Your task to perform on an android device: install app "Google Home" Image 0: 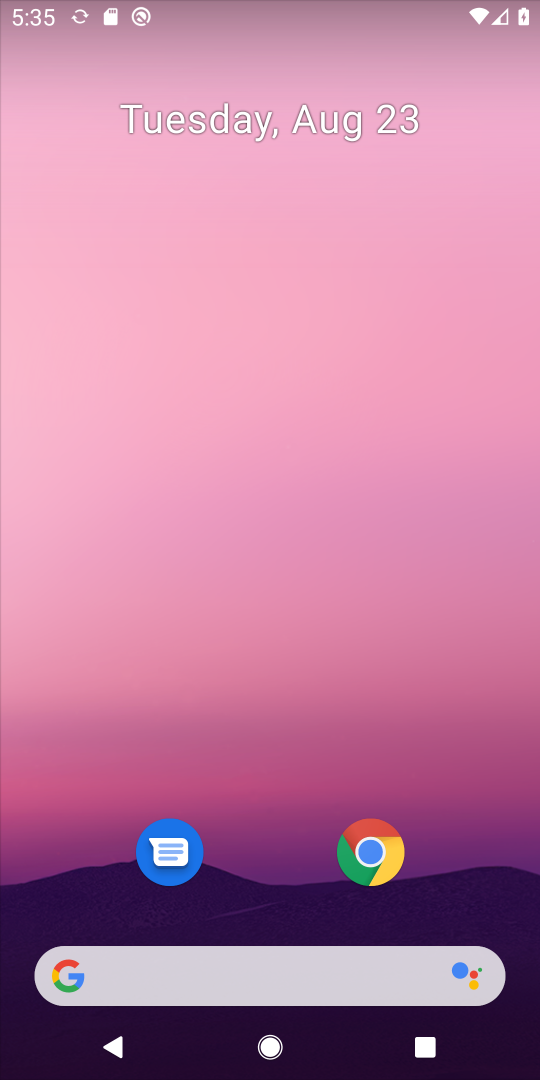
Step 0: press home button
Your task to perform on an android device: install app "Google Home" Image 1: 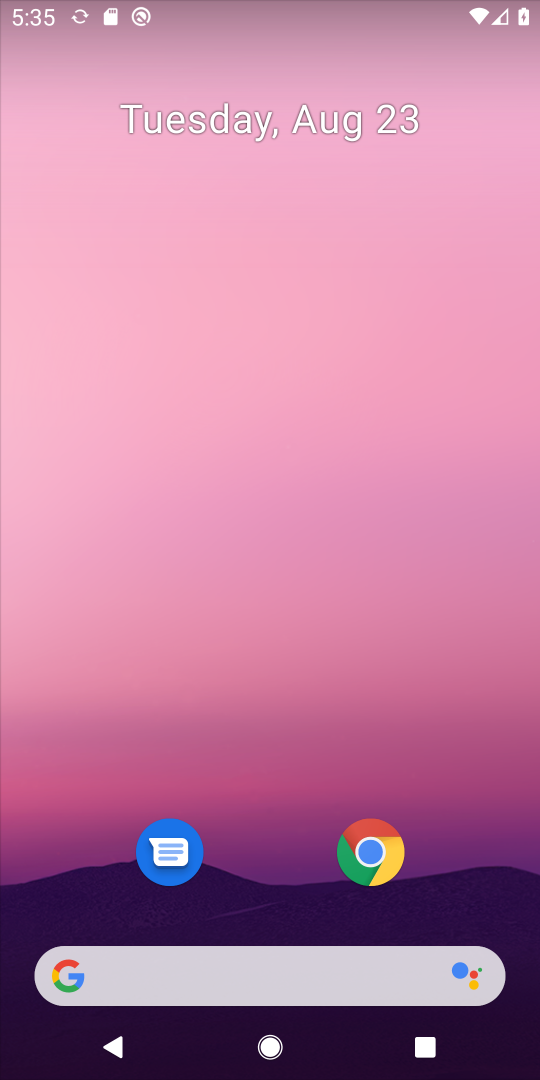
Step 1: drag from (259, 970) to (314, 167)
Your task to perform on an android device: install app "Google Home" Image 2: 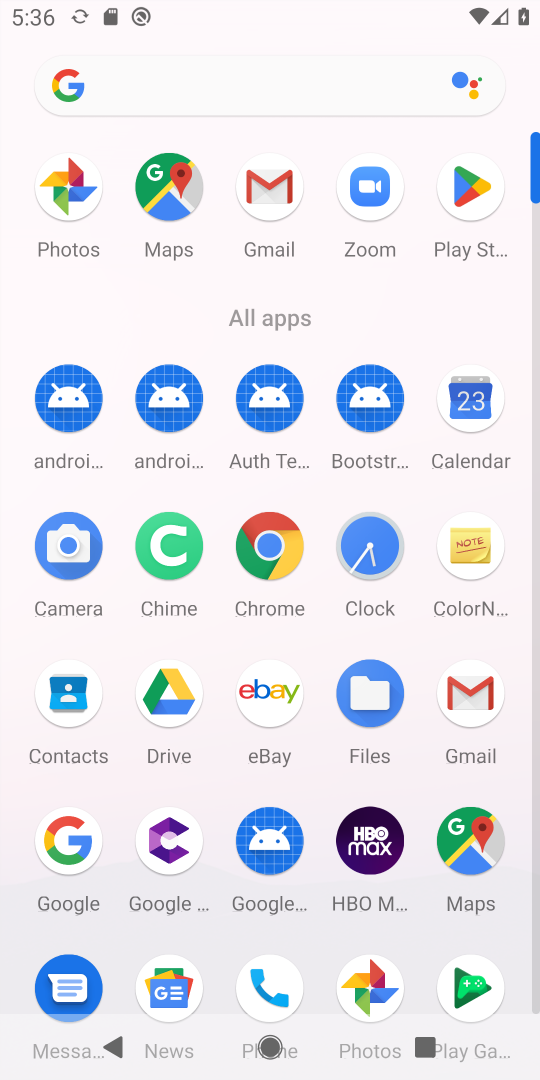
Step 2: click (471, 188)
Your task to perform on an android device: install app "Google Home" Image 3: 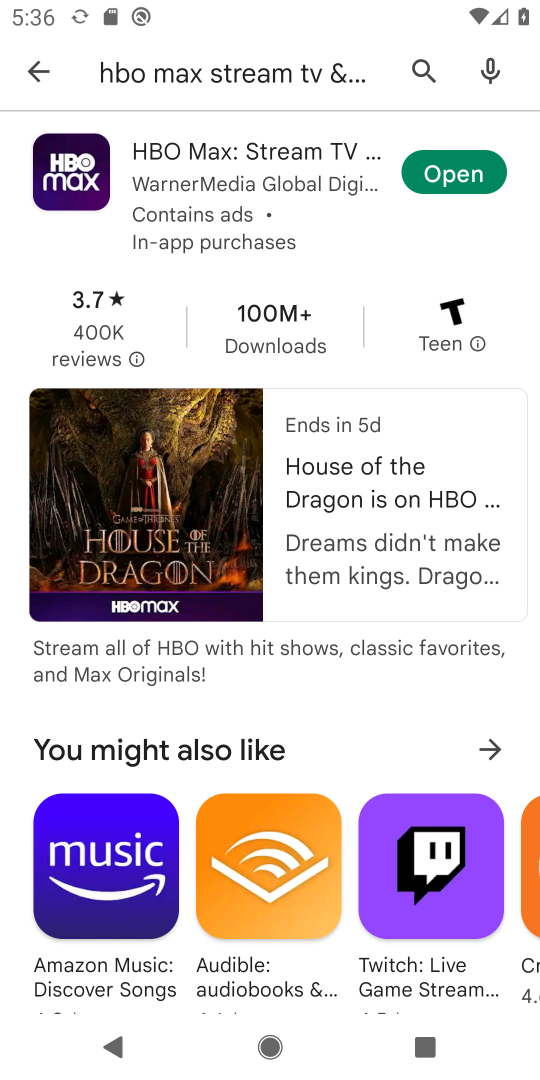
Step 3: press back button
Your task to perform on an android device: install app "Google Home" Image 4: 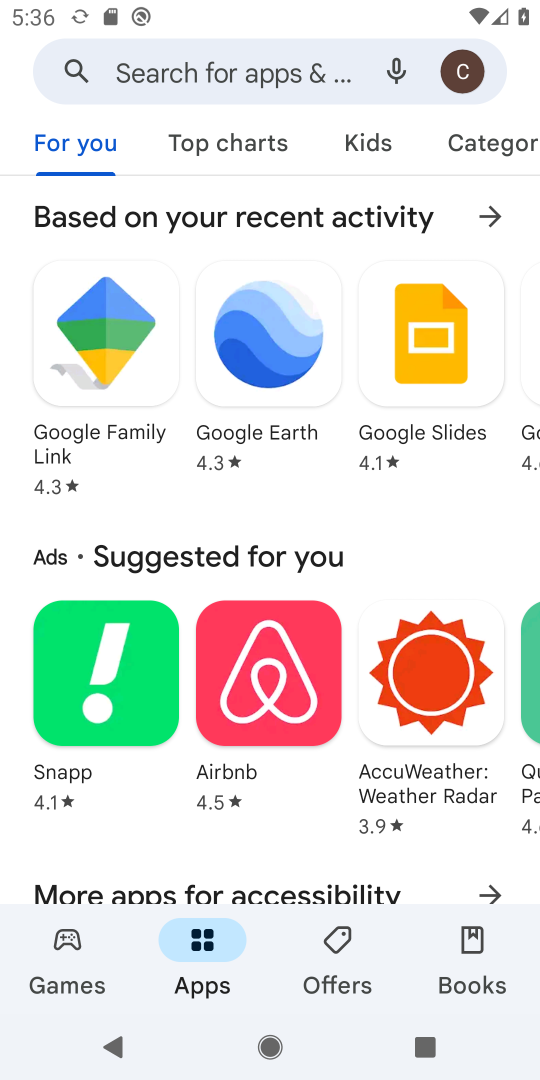
Step 4: click (287, 69)
Your task to perform on an android device: install app "Google Home" Image 5: 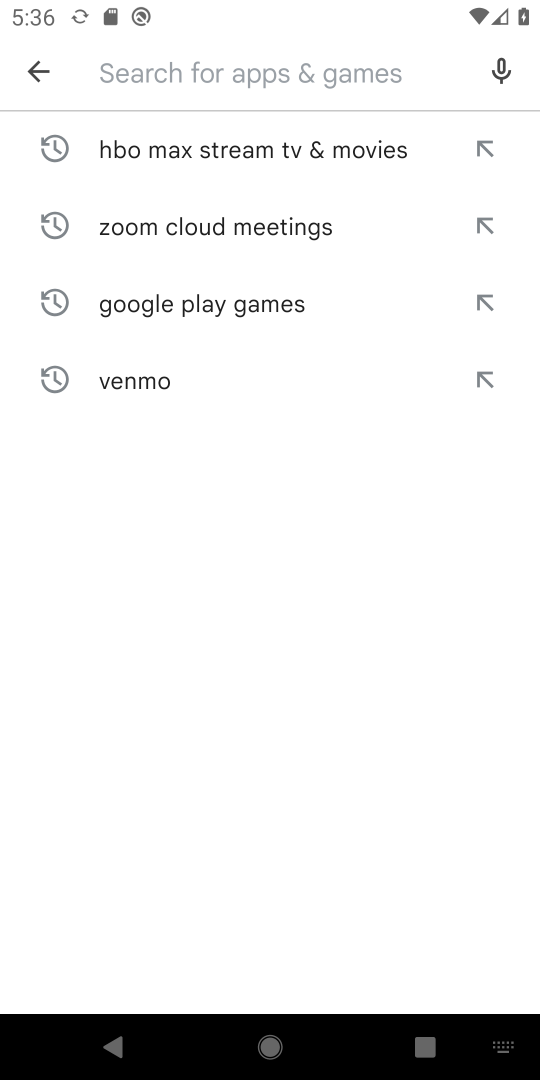
Step 5: type "Google Home"
Your task to perform on an android device: install app "Google Home" Image 6: 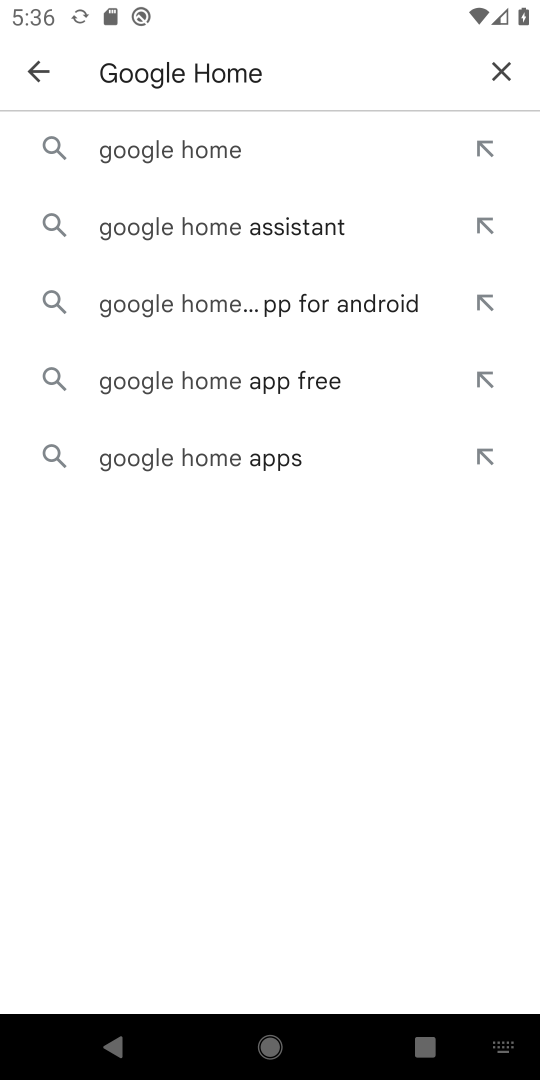
Step 6: click (186, 144)
Your task to perform on an android device: install app "Google Home" Image 7: 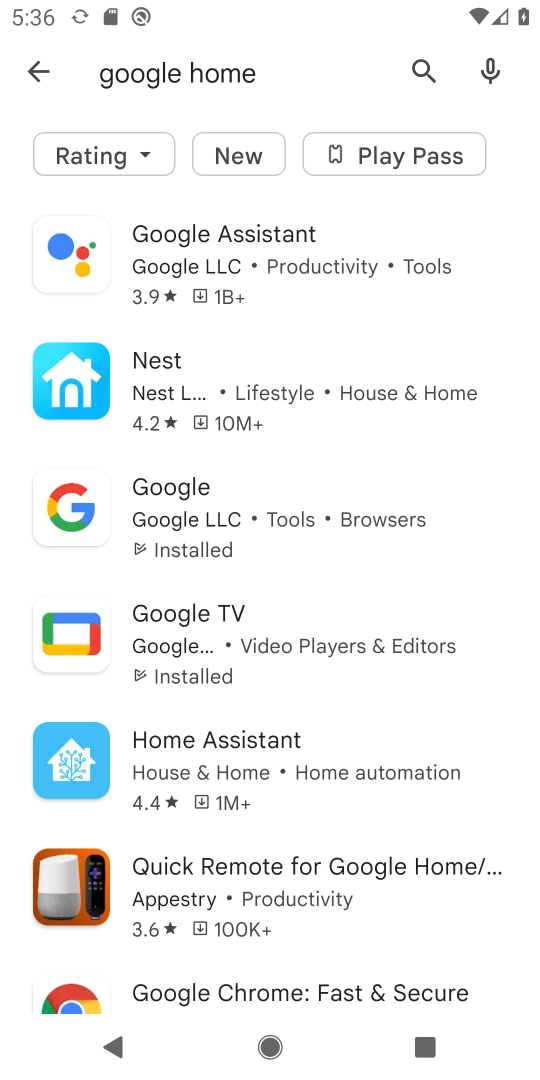
Step 7: click (226, 363)
Your task to perform on an android device: install app "Google Home" Image 8: 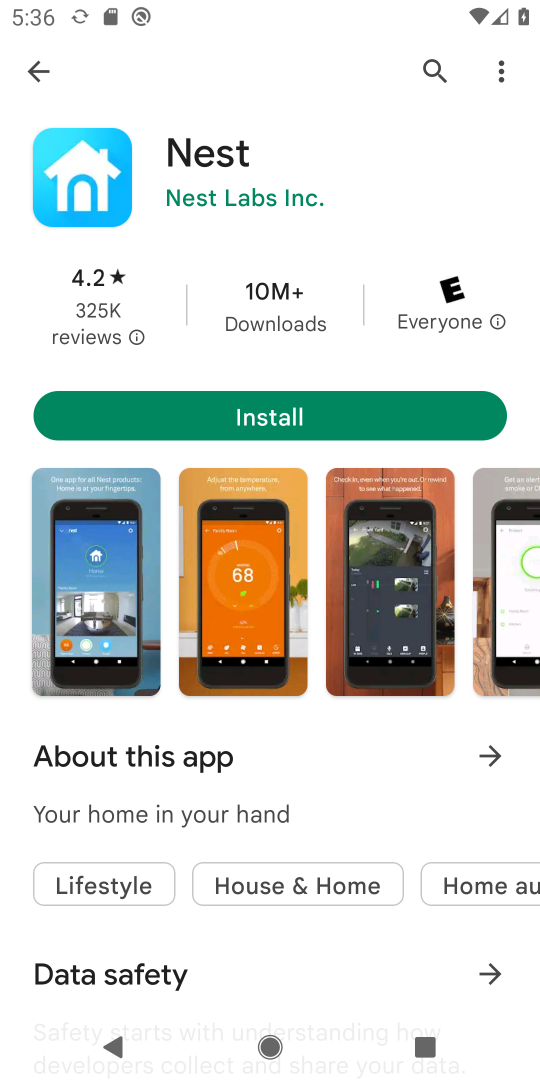
Step 8: press back button
Your task to perform on an android device: install app "Google Home" Image 9: 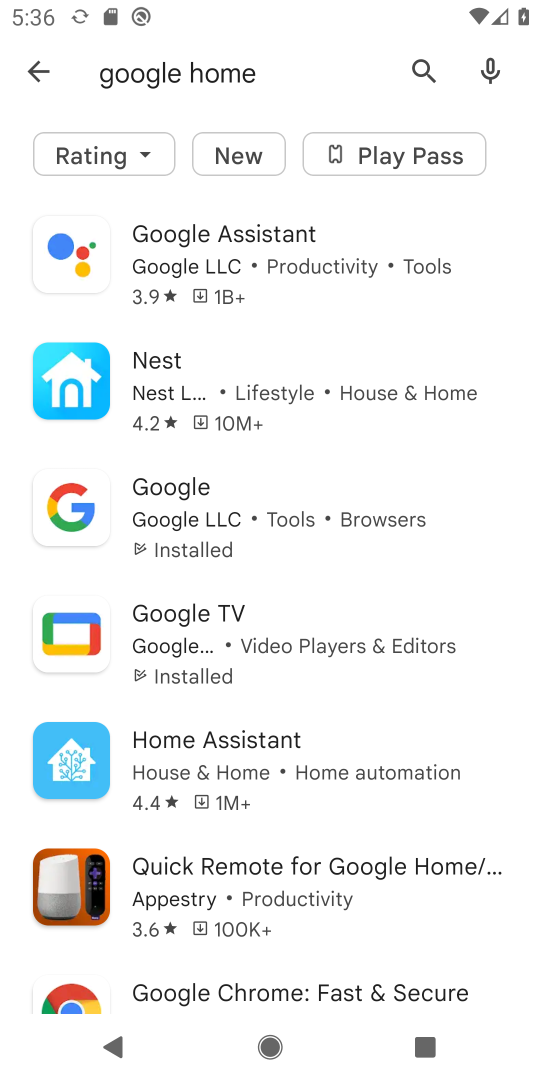
Step 9: drag from (333, 387) to (353, 239)
Your task to perform on an android device: install app "Google Home" Image 10: 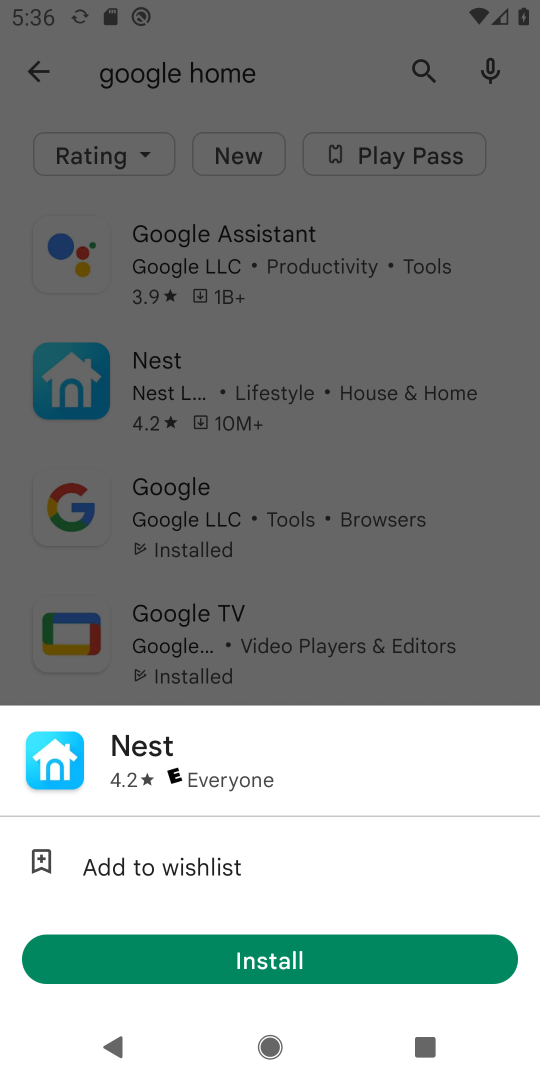
Step 10: click (479, 452)
Your task to perform on an android device: install app "Google Home" Image 11: 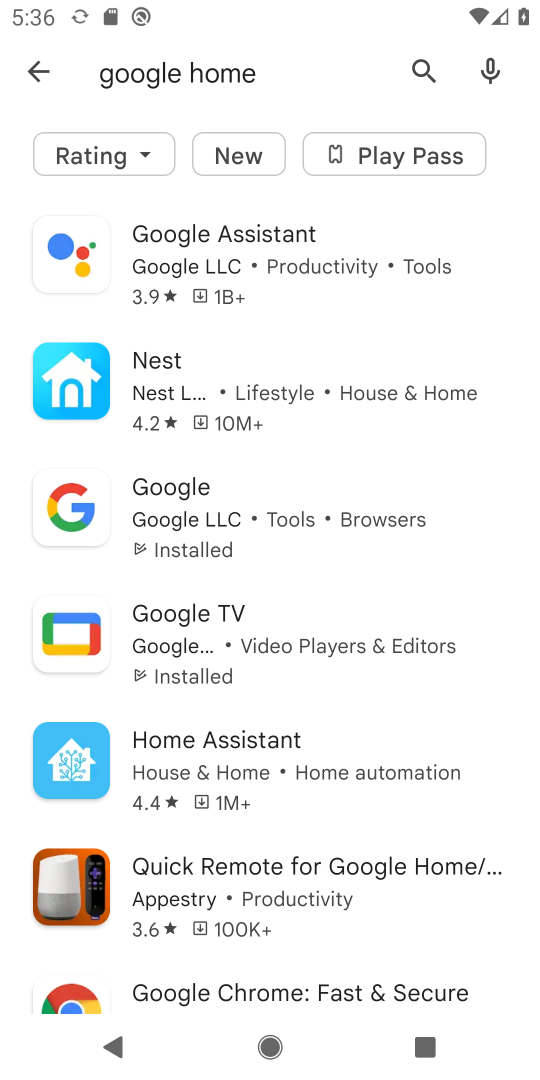
Step 11: drag from (281, 945) to (315, 683)
Your task to perform on an android device: install app "Google Home" Image 12: 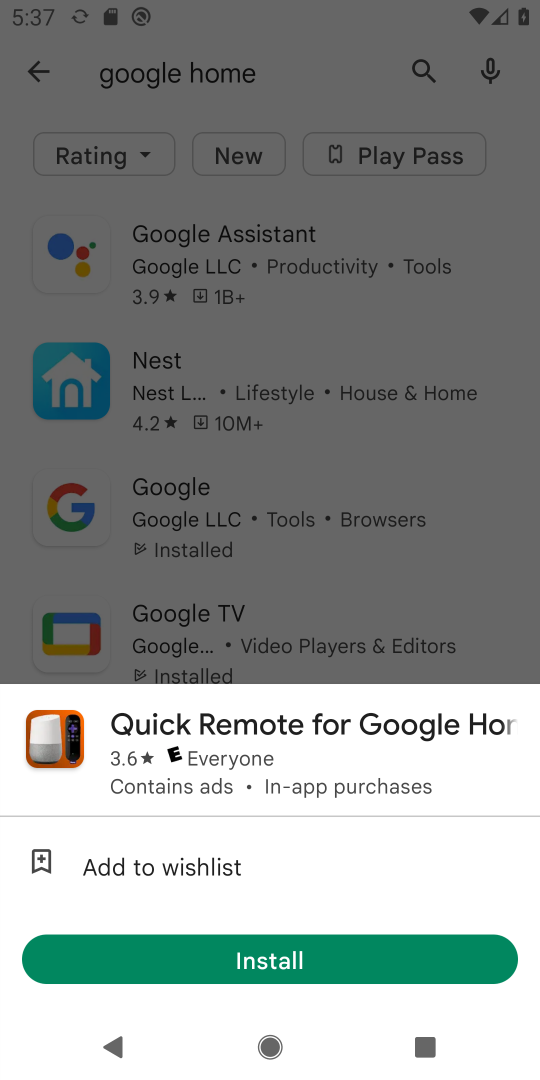
Step 12: click (348, 584)
Your task to perform on an android device: install app "Google Home" Image 13: 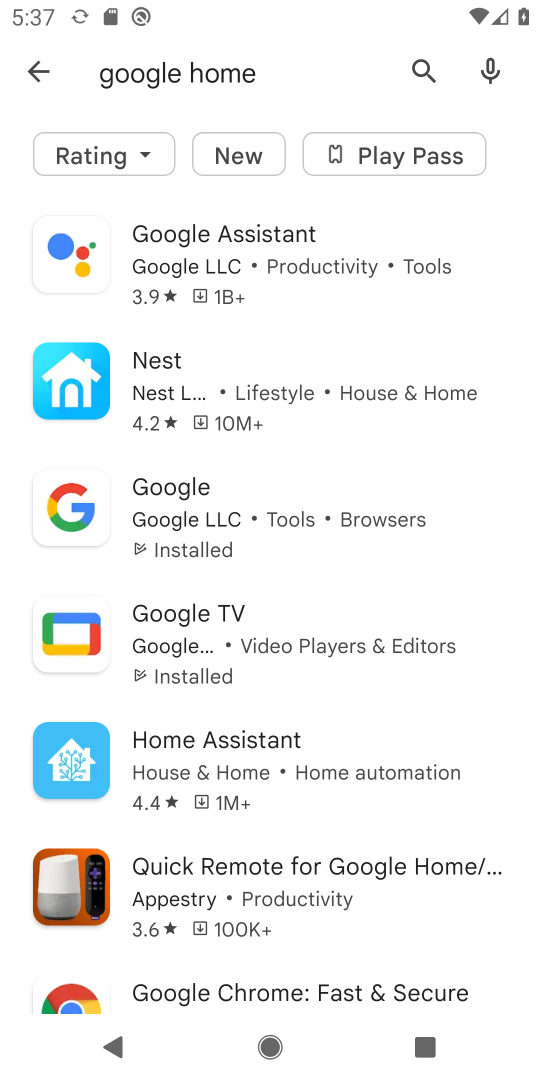
Step 13: drag from (234, 842) to (264, 582)
Your task to perform on an android device: install app "Google Home" Image 14: 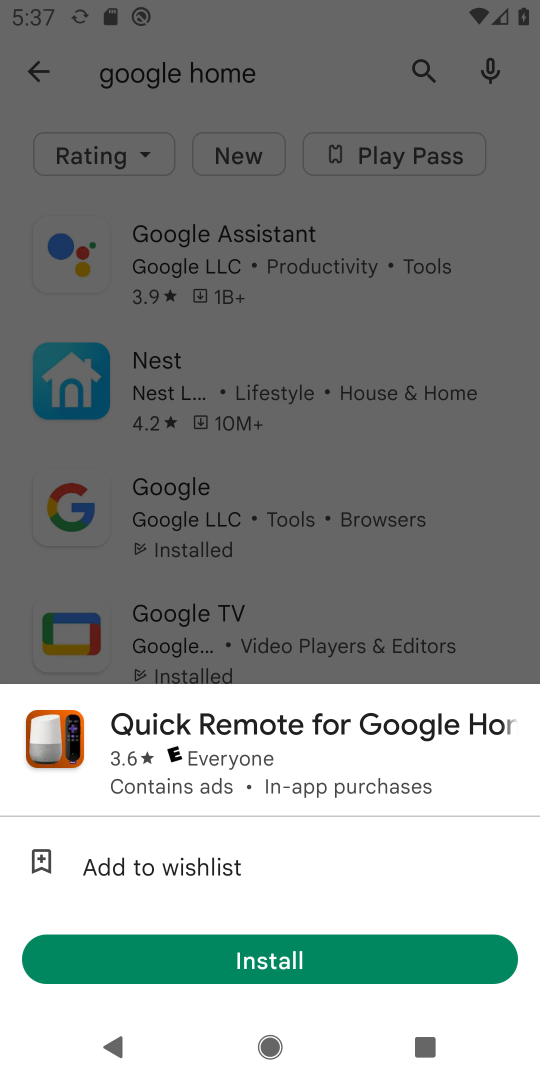
Step 14: click (348, 562)
Your task to perform on an android device: install app "Google Home" Image 15: 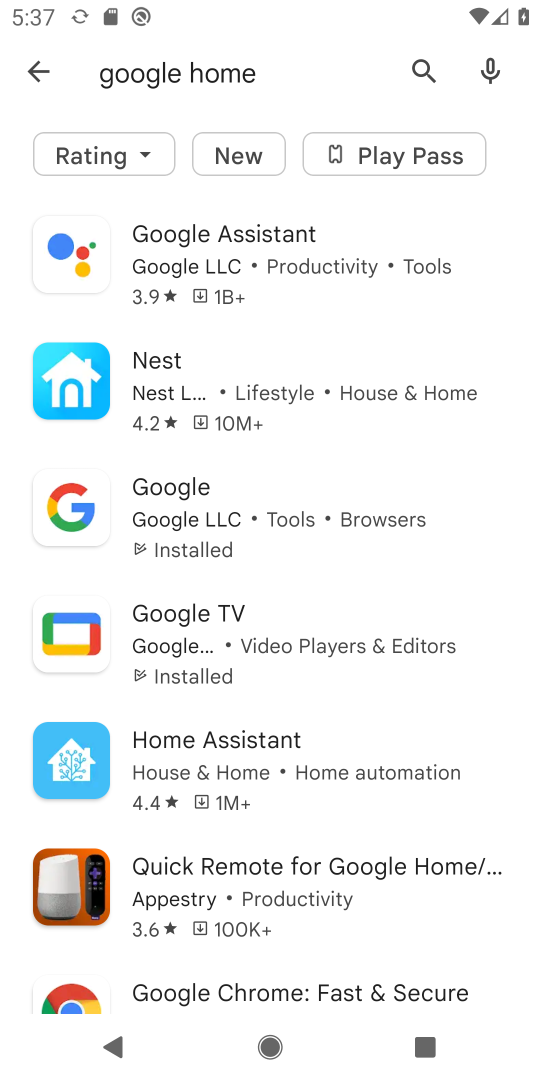
Step 15: drag from (294, 936) to (444, 224)
Your task to perform on an android device: install app "Google Home" Image 16: 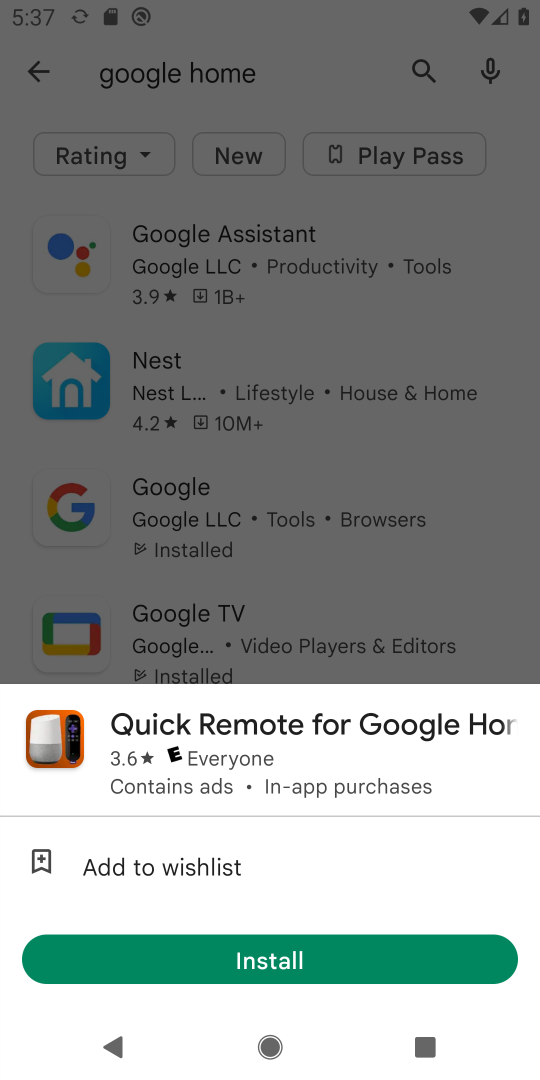
Step 16: click (51, 72)
Your task to perform on an android device: install app "Google Home" Image 17: 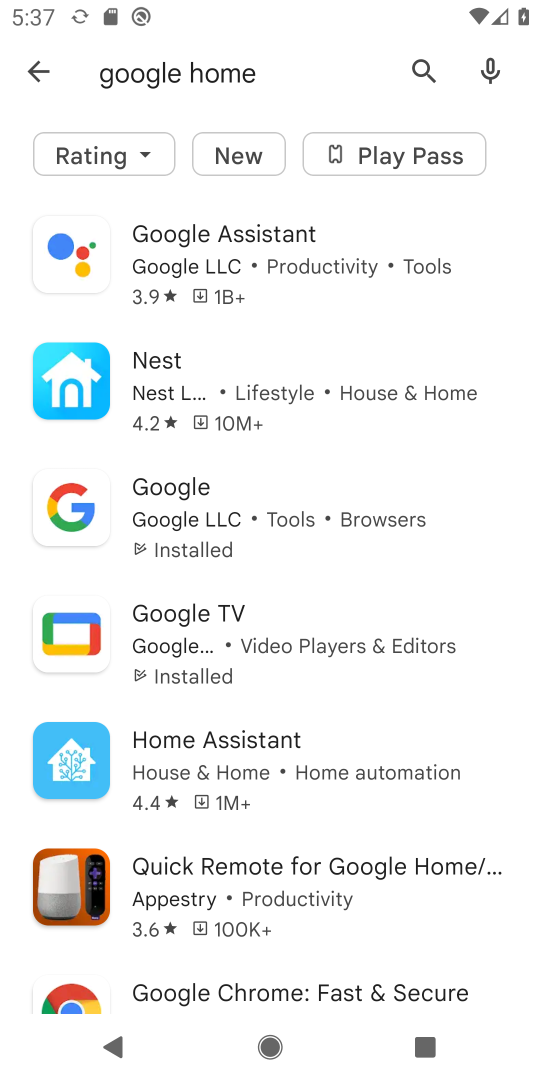
Step 17: task complete